Your task to perform on an android device: turn vacation reply on in the gmail app Image 0: 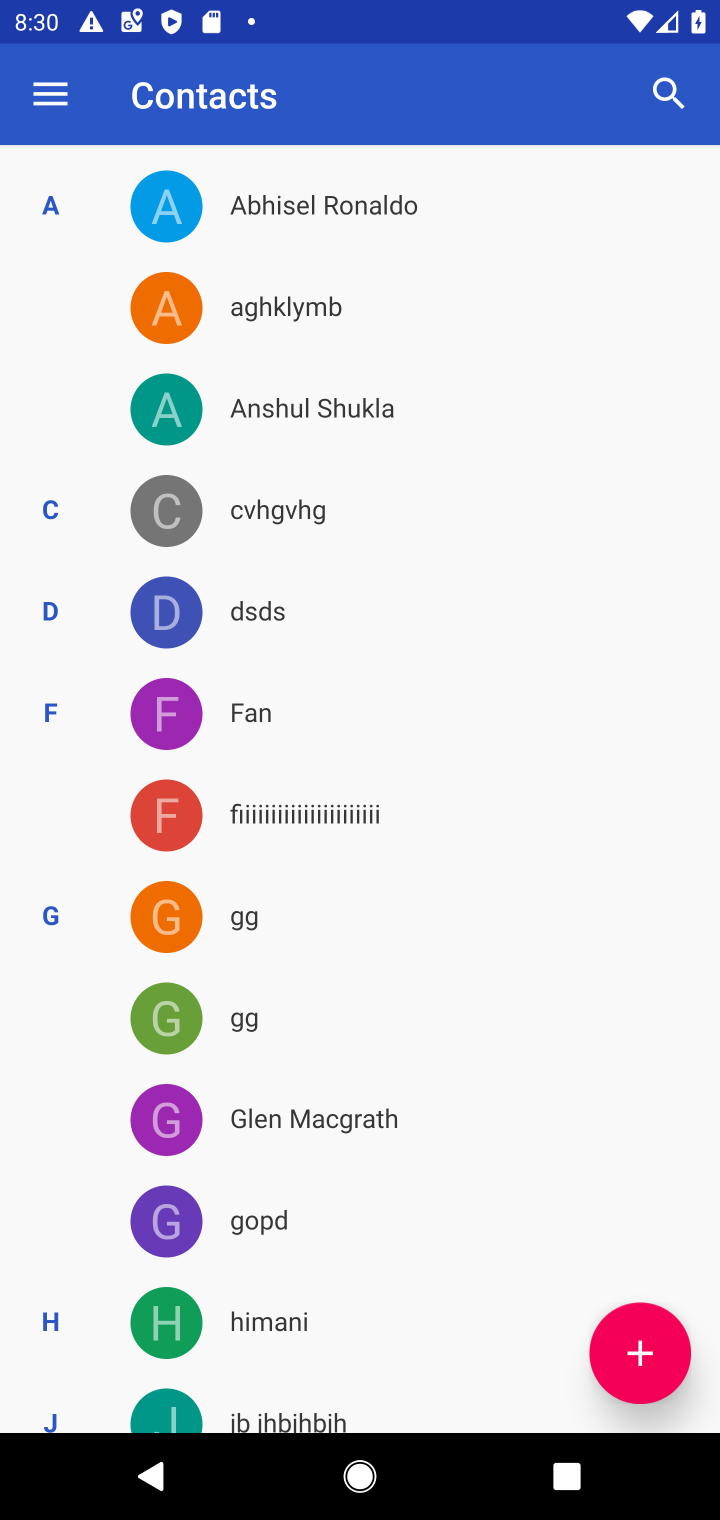
Step 0: press home button
Your task to perform on an android device: turn vacation reply on in the gmail app Image 1: 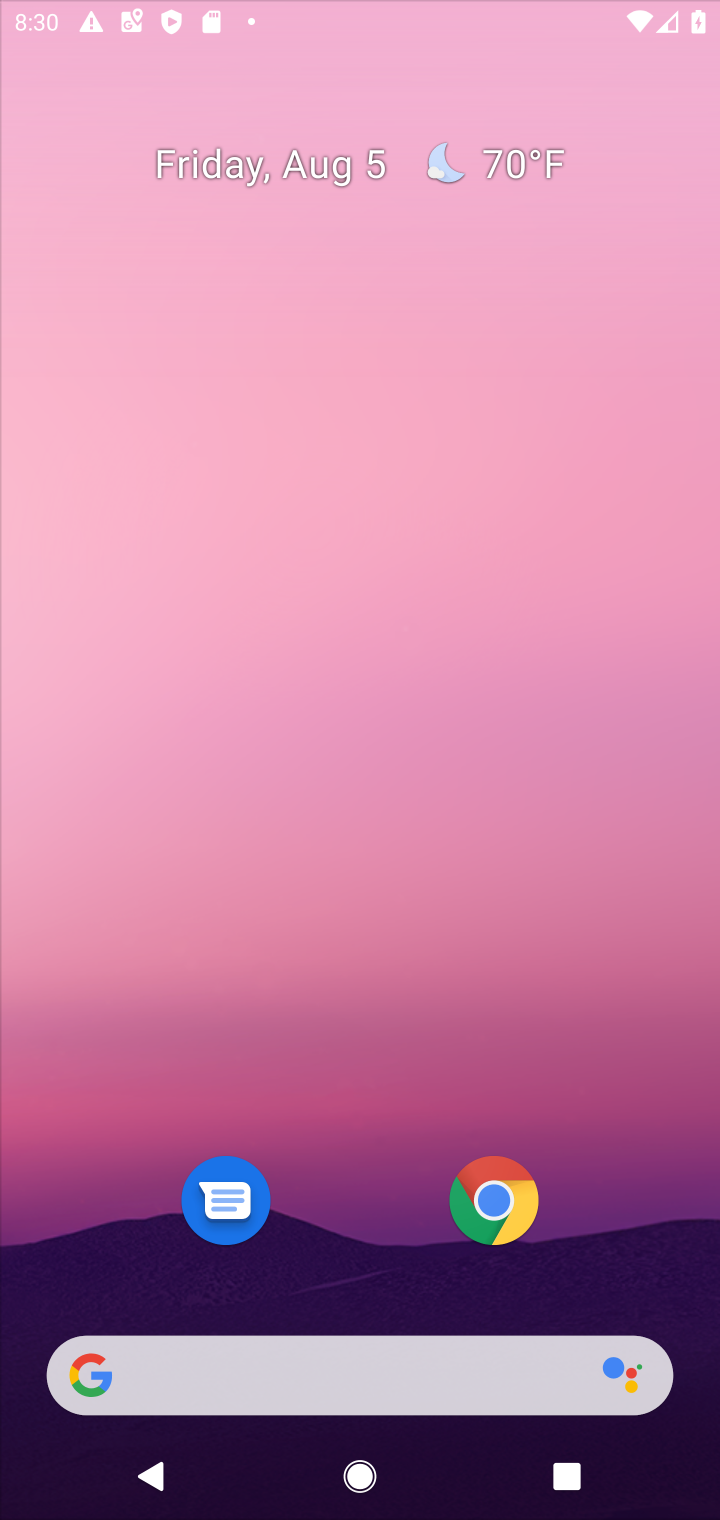
Step 1: drag from (261, 1337) to (343, 800)
Your task to perform on an android device: turn vacation reply on in the gmail app Image 2: 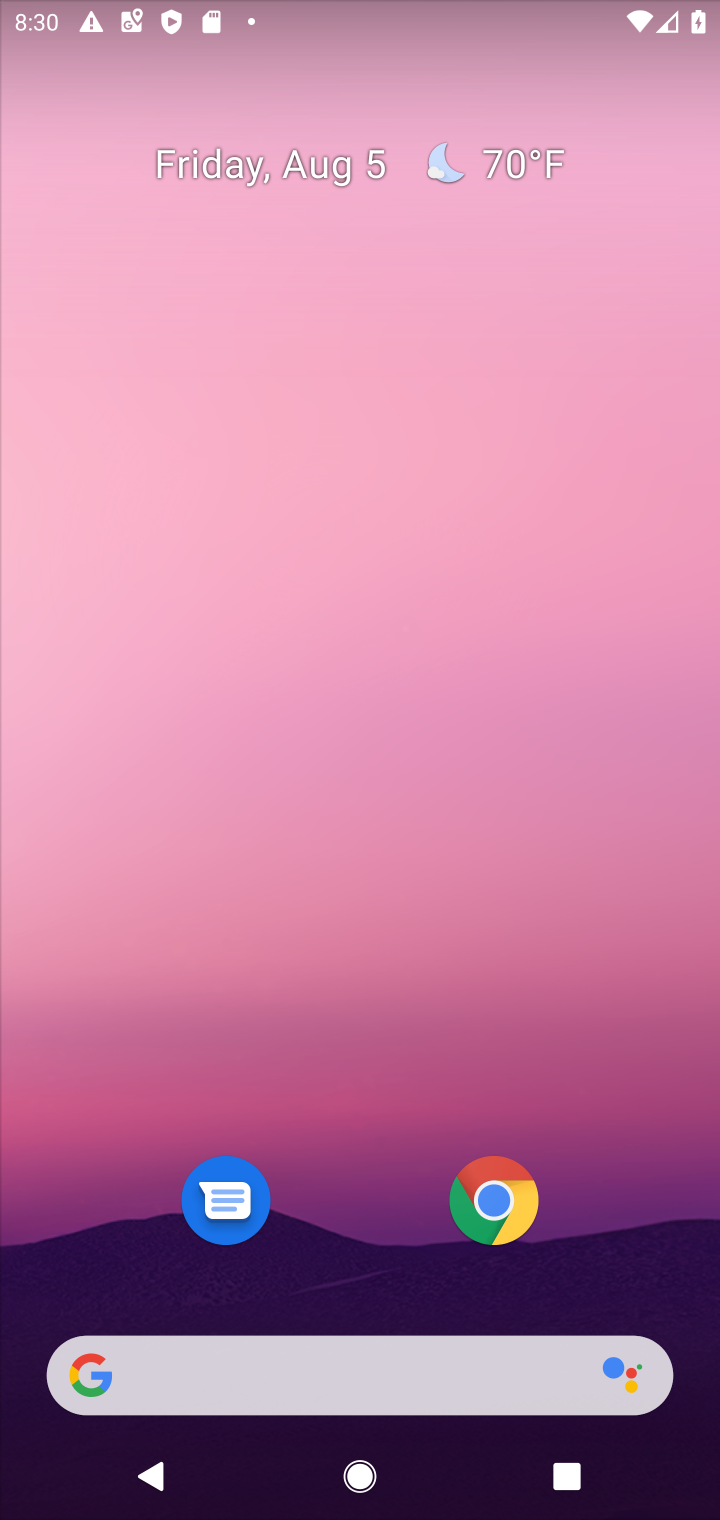
Step 2: drag from (364, 1357) to (441, 626)
Your task to perform on an android device: turn vacation reply on in the gmail app Image 3: 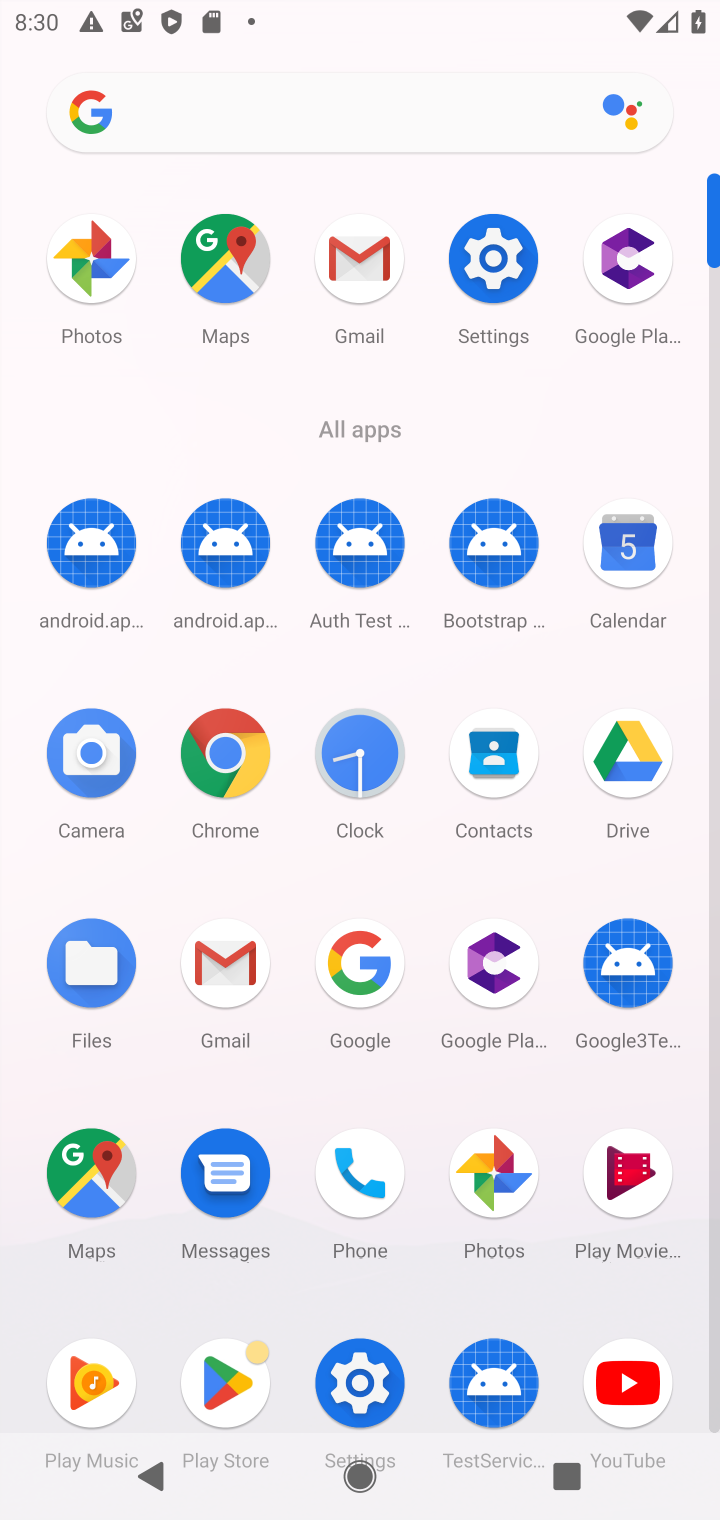
Step 3: click (346, 282)
Your task to perform on an android device: turn vacation reply on in the gmail app Image 4: 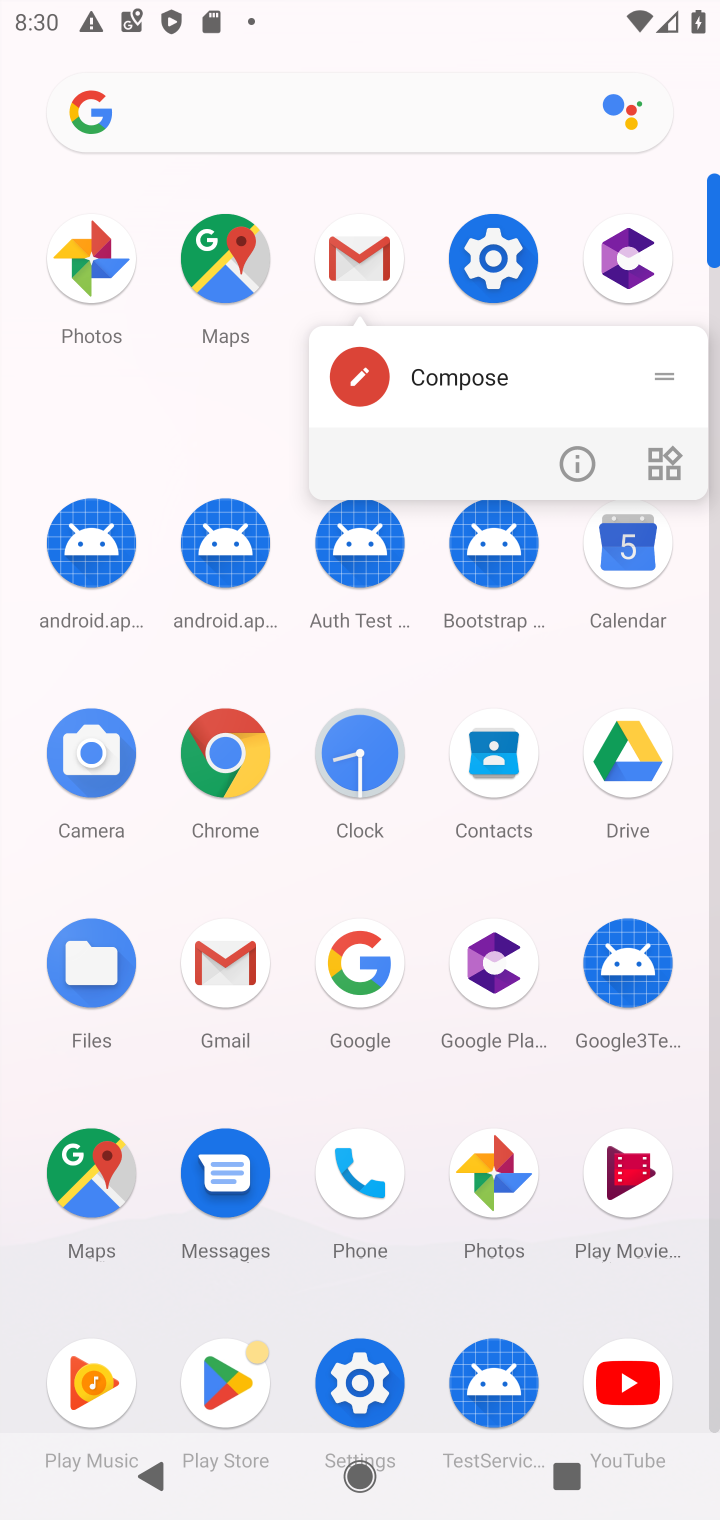
Step 4: click (346, 282)
Your task to perform on an android device: turn vacation reply on in the gmail app Image 5: 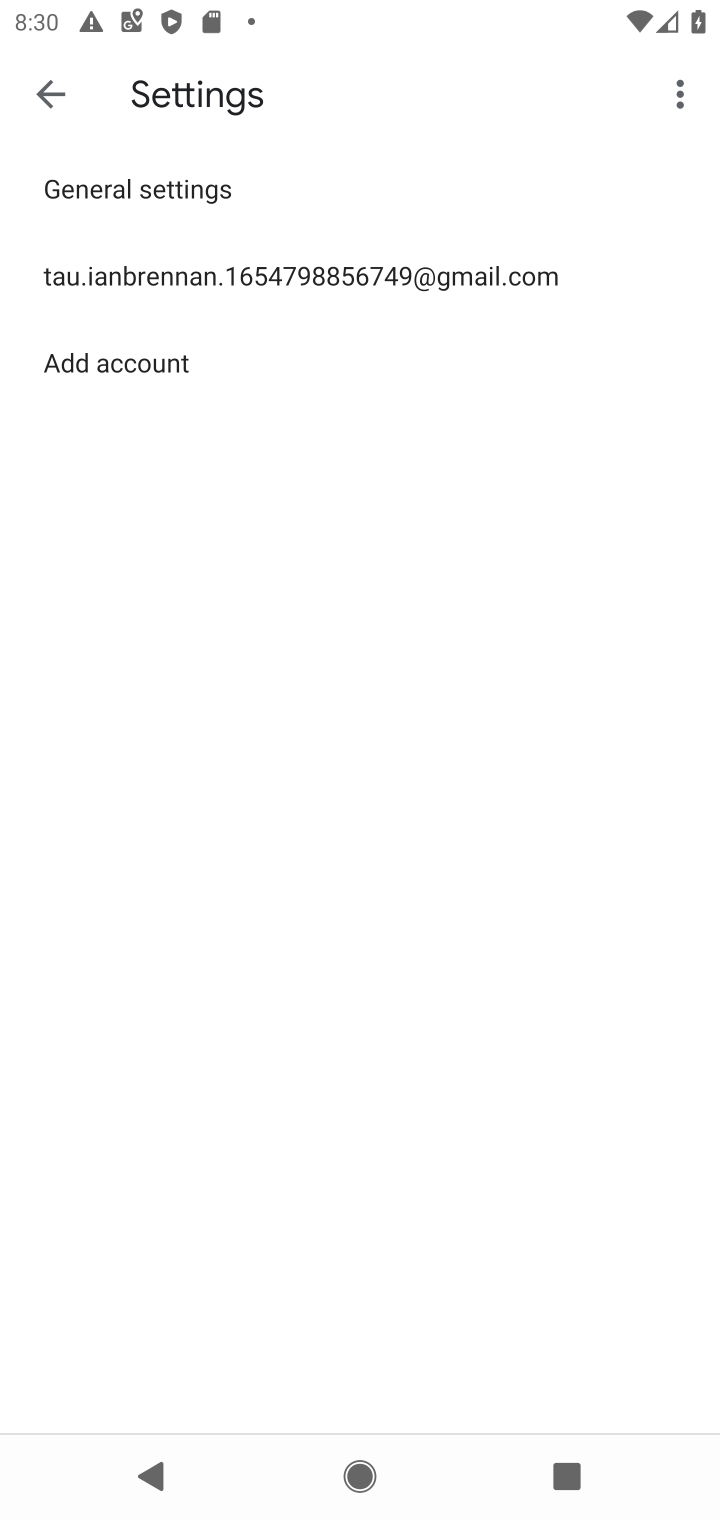
Step 5: click (35, 279)
Your task to perform on an android device: turn vacation reply on in the gmail app Image 6: 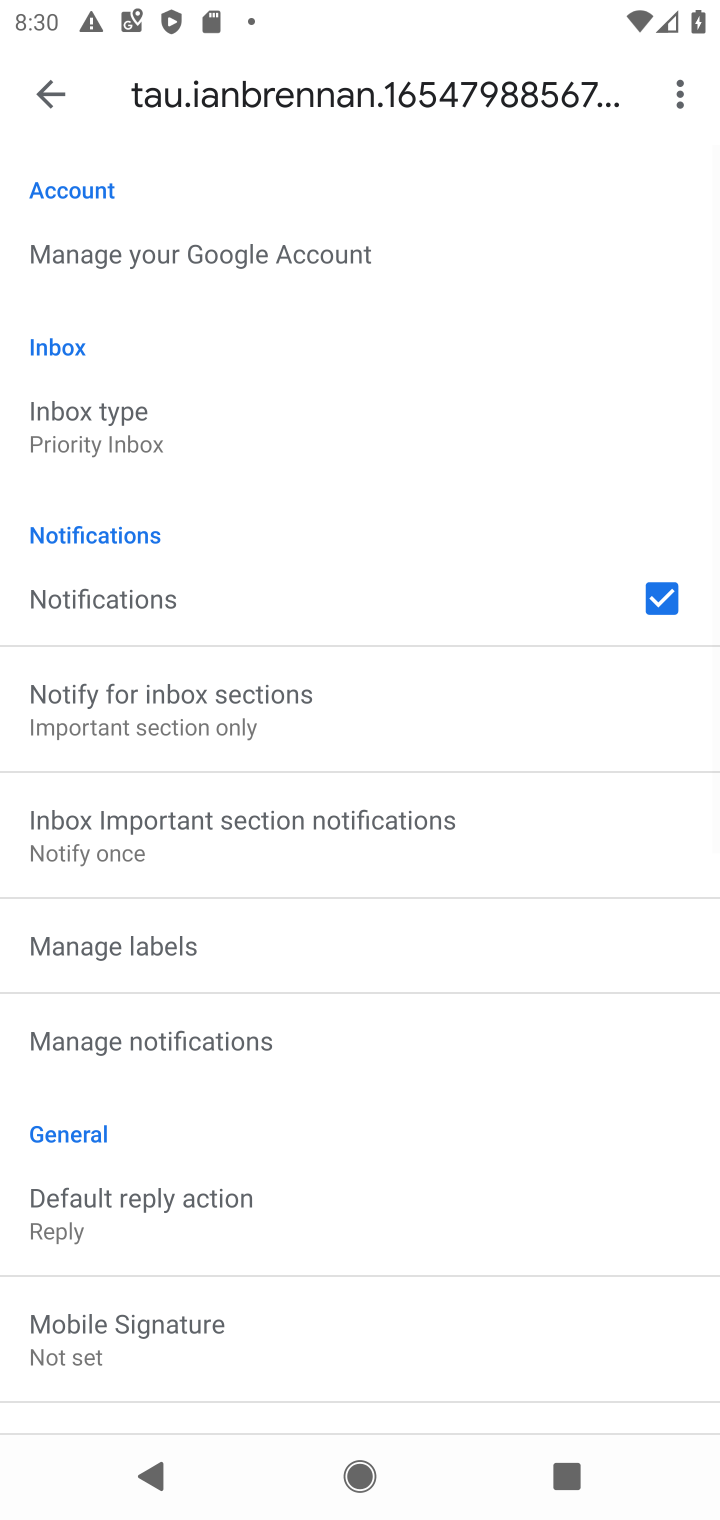
Step 6: drag from (212, 1348) to (250, 614)
Your task to perform on an android device: turn vacation reply on in the gmail app Image 7: 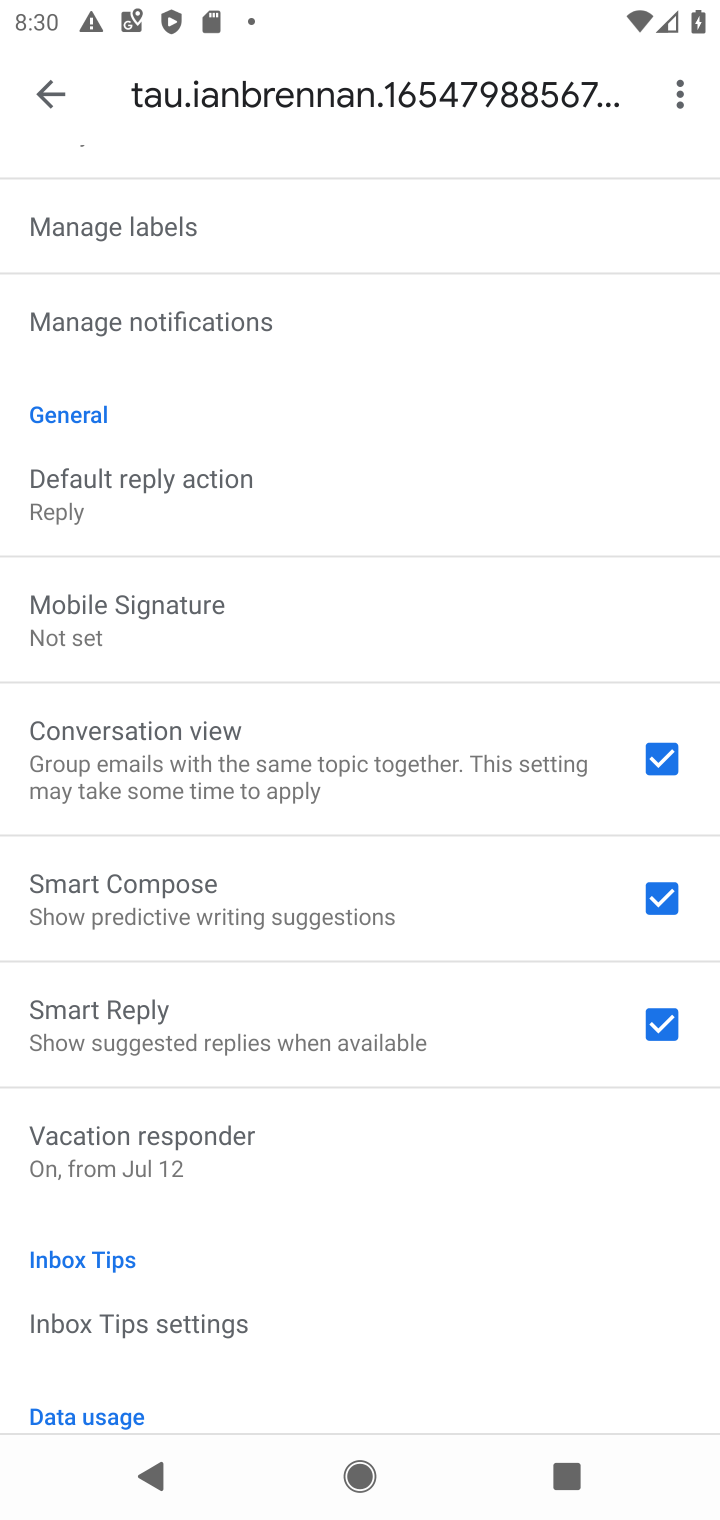
Step 7: click (156, 1118)
Your task to perform on an android device: turn vacation reply on in the gmail app Image 8: 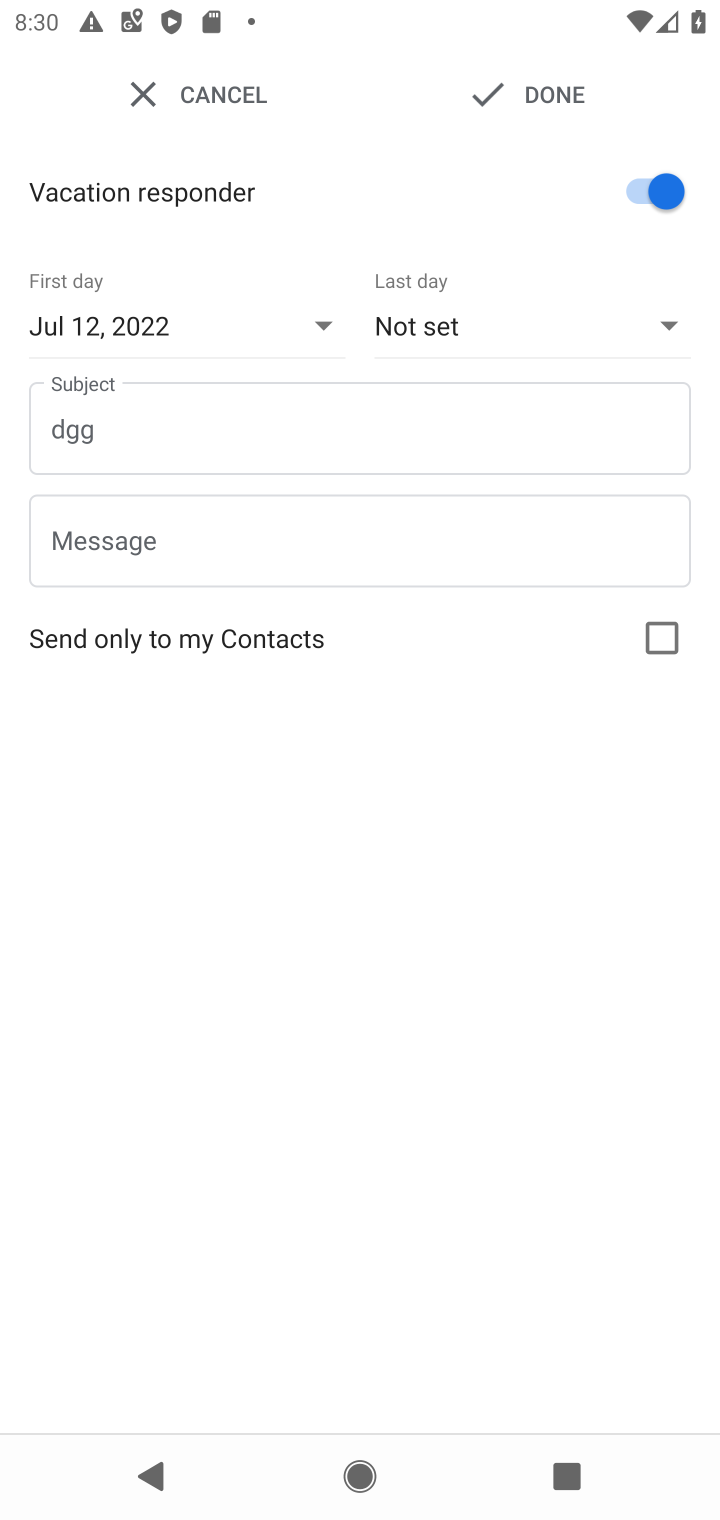
Step 8: click (538, 95)
Your task to perform on an android device: turn vacation reply on in the gmail app Image 9: 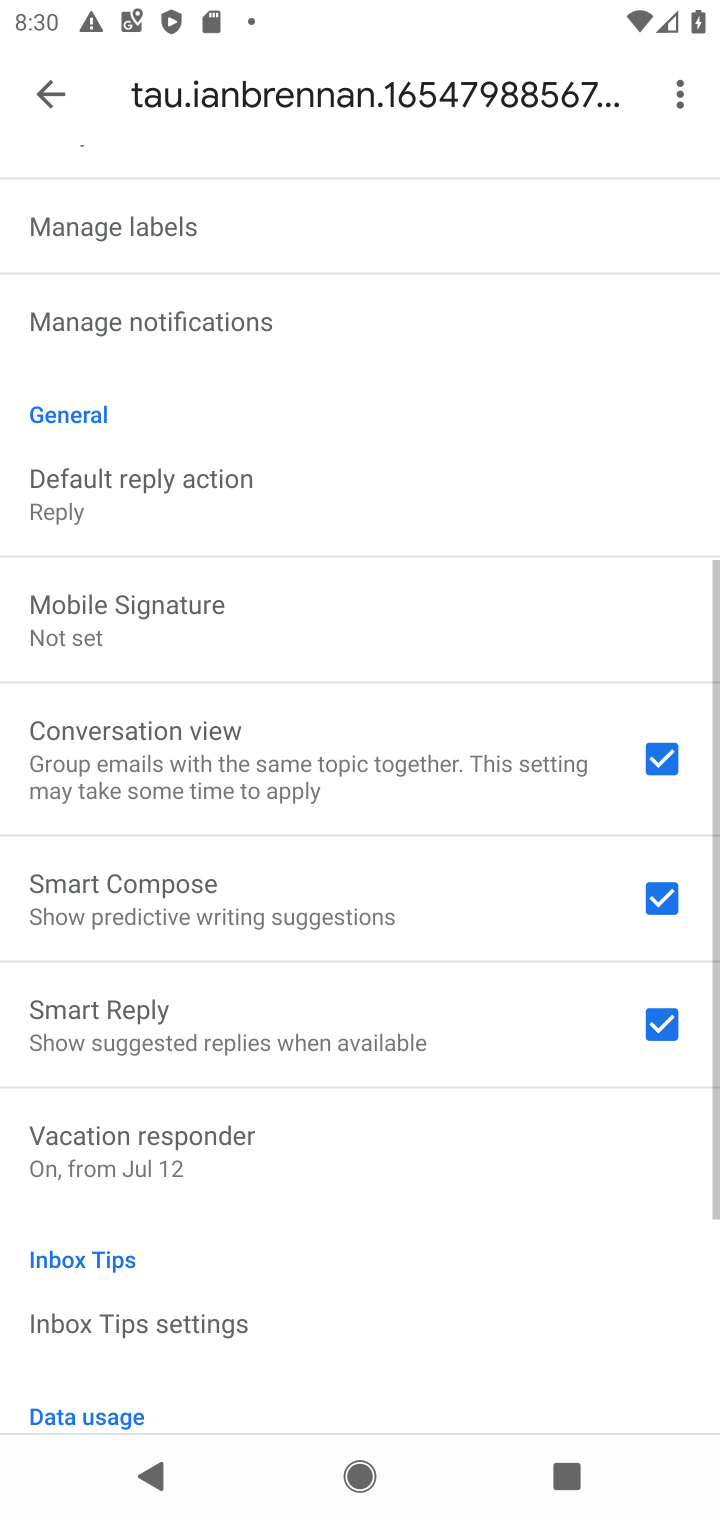
Step 9: task complete